Your task to perform on an android device: check the backup settings in the google photos Image 0: 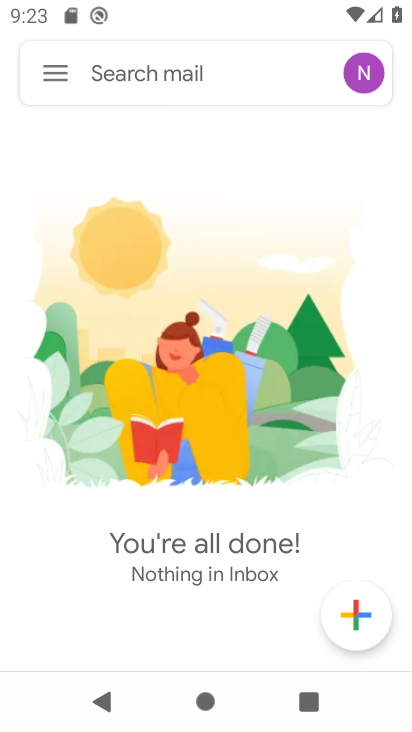
Step 0: press home button
Your task to perform on an android device: check the backup settings in the google photos Image 1: 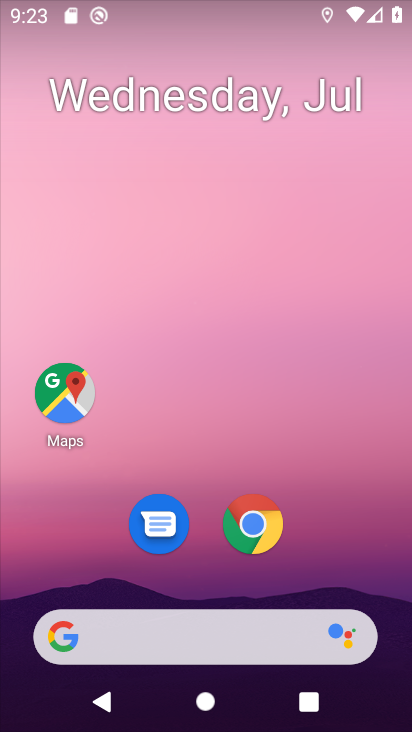
Step 1: drag from (335, 517) to (390, 65)
Your task to perform on an android device: check the backup settings in the google photos Image 2: 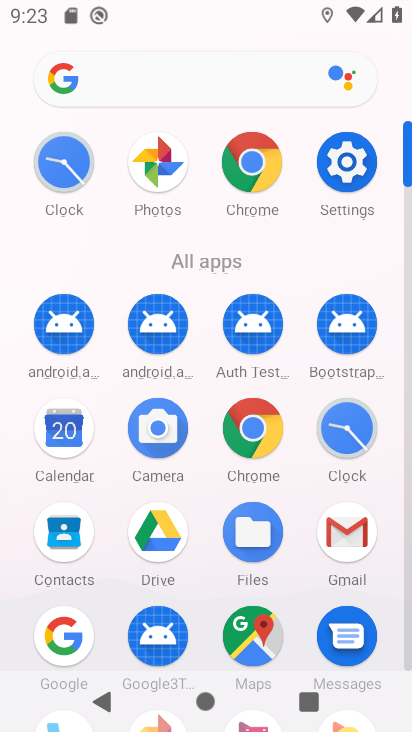
Step 2: click (154, 165)
Your task to perform on an android device: check the backup settings in the google photos Image 3: 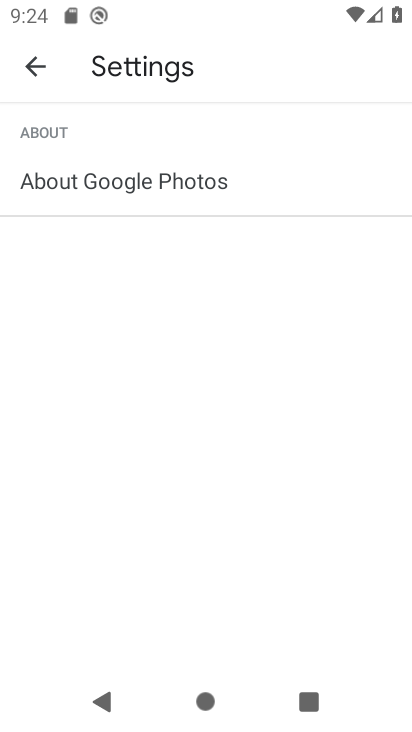
Step 3: click (39, 66)
Your task to perform on an android device: check the backup settings in the google photos Image 4: 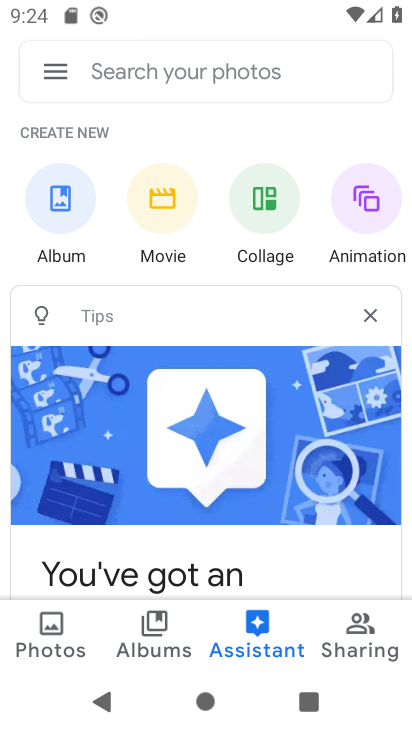
Step 4: click (52, 65)
Your task to perform on an android device: check the backup settings in the google photos Image 5: 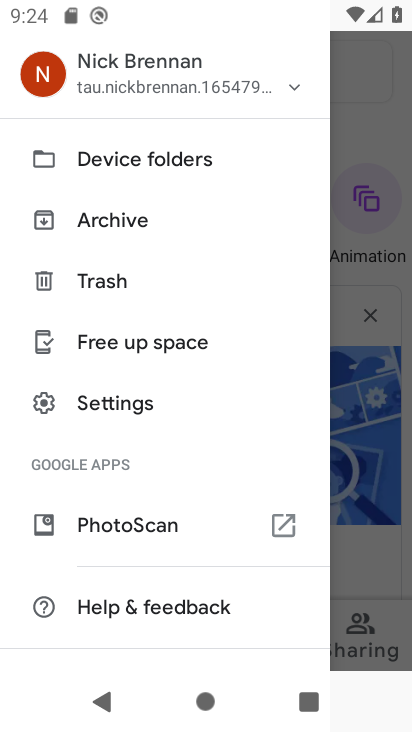
Step 5: click (112, 405)
Your task to perform on an android device: check the backup settings in the google photos Image 6: 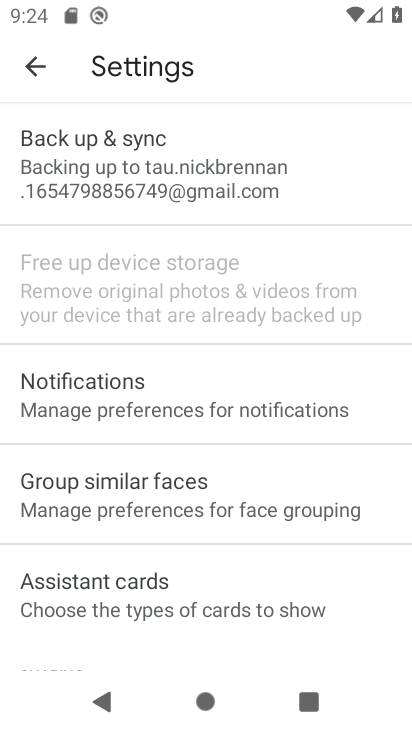
Step 6: click (201, 187)
Your task to perform on an android device: check the backup settings in the google photos Image 7: 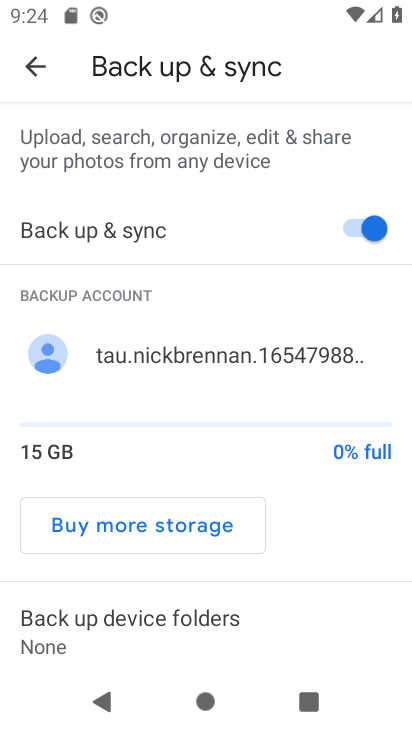
Step 7: task complete